Your task to perform on an android device: toggle improve location accuracy Image 0: 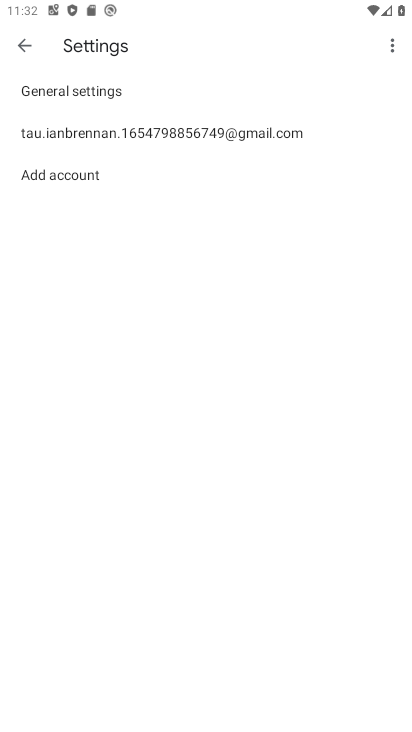
Step 0: press home button
Your task to perform on an android device: toggle improve location accuracy Image 1: 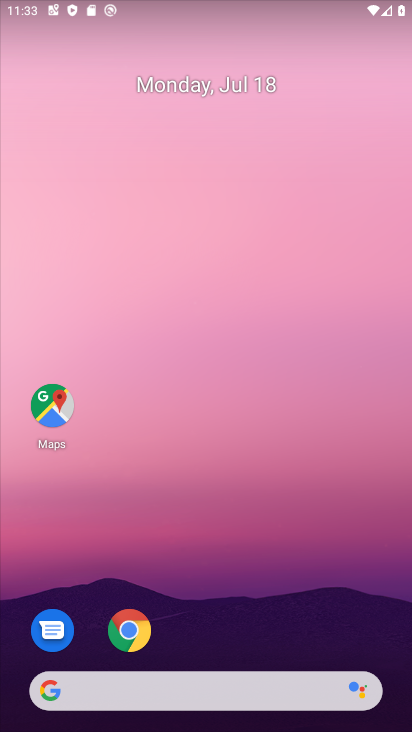
Step 1: drag from (272, 625) to (212, 41)
Your task to perform on an android device: toggle improve location accuracy Image 2: 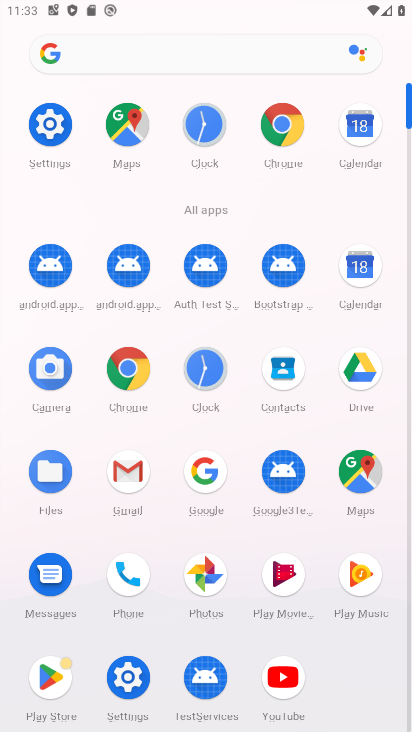
Step 2: click (55, 127)
Your task to perform on an android device: toggle improve location accuracy Image 3: 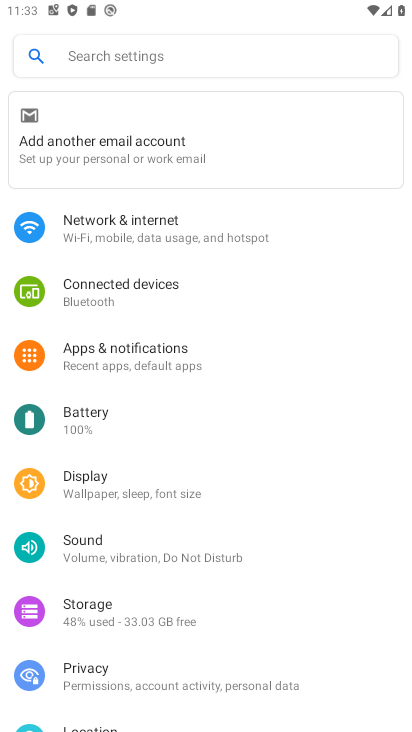
Step 3: drag from (198, 711) to (171, 193)
Your task to perform on an android device: toggle improve location accuracy Image 4: 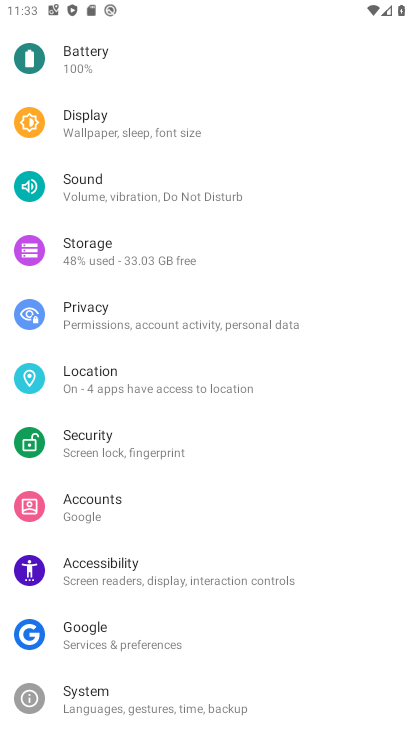
Step 4: click (197, 389)
Your task to perform on an android device: toggle improve location accuracy Image 5: 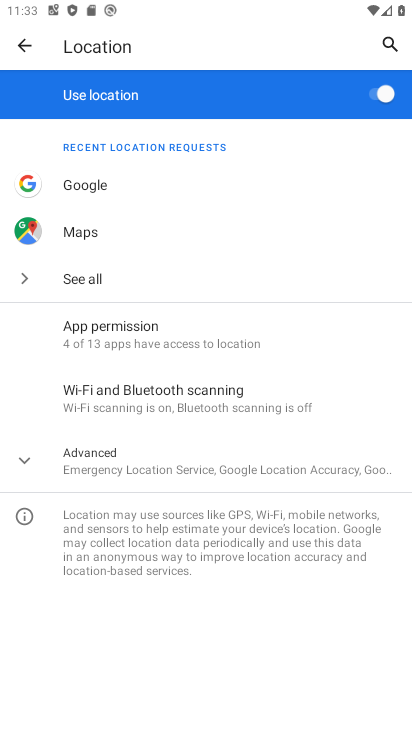
Step 5: click (212, 473)
Your task to perform on an android device: toggle improve location accuracy Image 6: 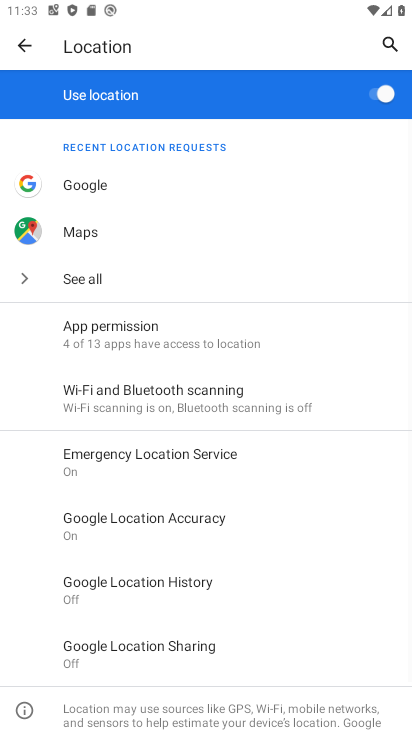
Step 6: click (220, 515)
Your task to perform on an android device: toggle improve location accuracy Image 7: 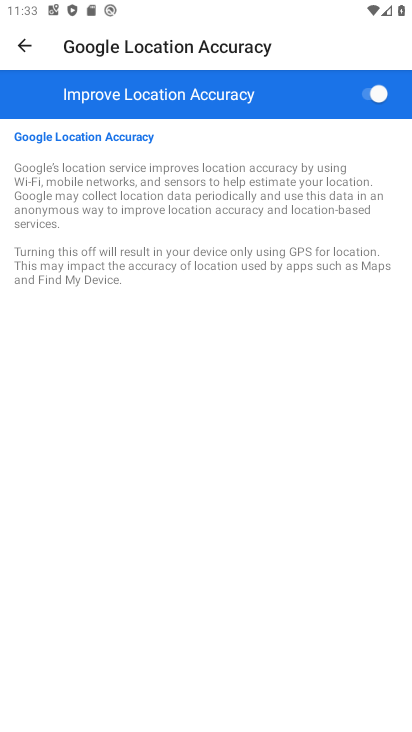
Step 7: click (375, 102)
Your task to perform on an android device: toggle improve location accuracy Image 8: 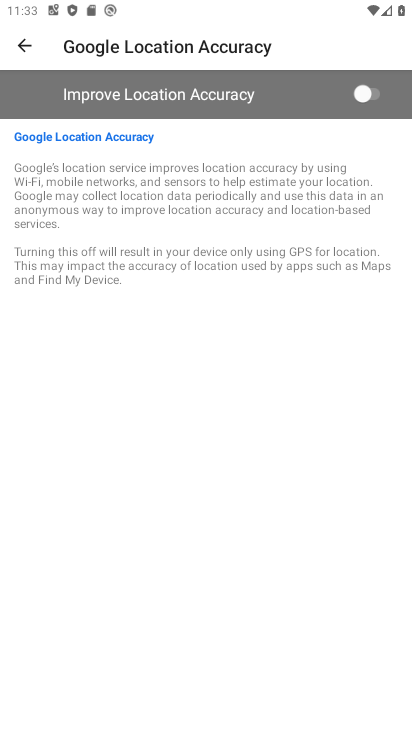
Step 8: task complete